Your task to perform on an android device: Open Google Image 0: 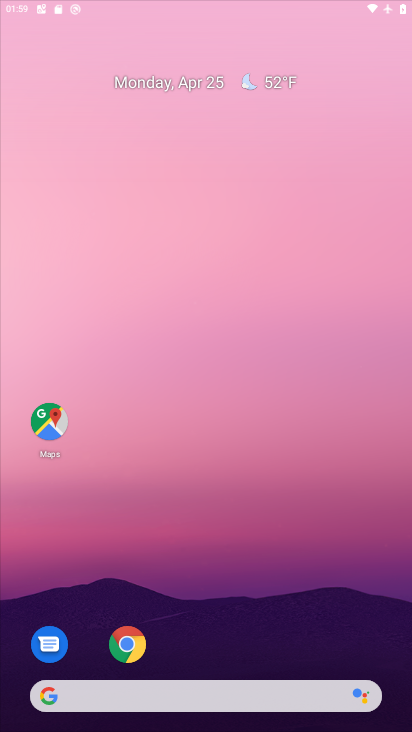
Step 0: click (121, 637)
Your task to perform on an android device: Open Google Image 1: 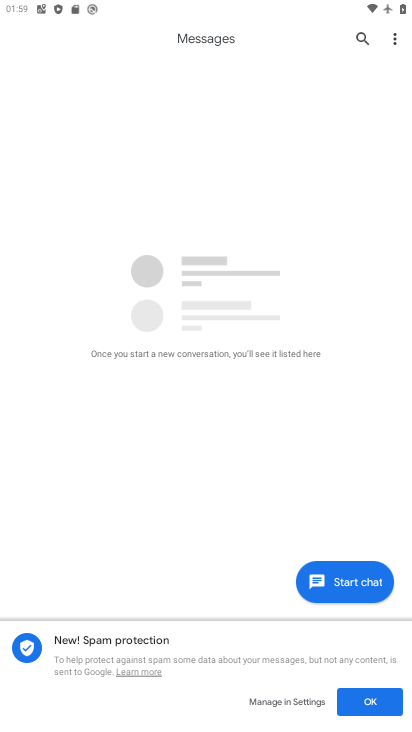
Step 1: press home button
Your task to perform on an android device: Open Google Image 2: 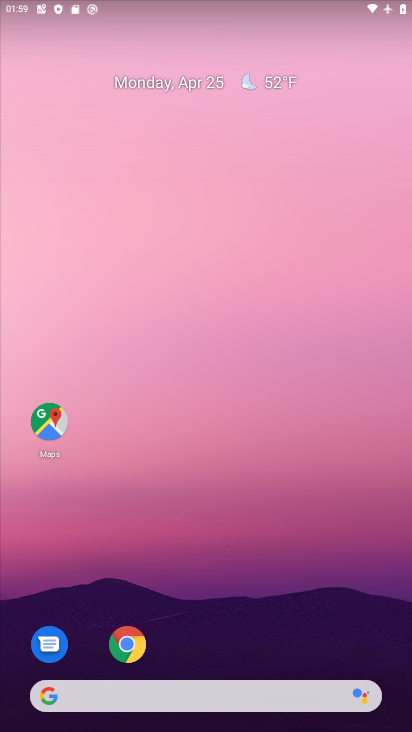
Step 2: click (218, 694)
Your task to perform on an android device: Open Google Image 3: 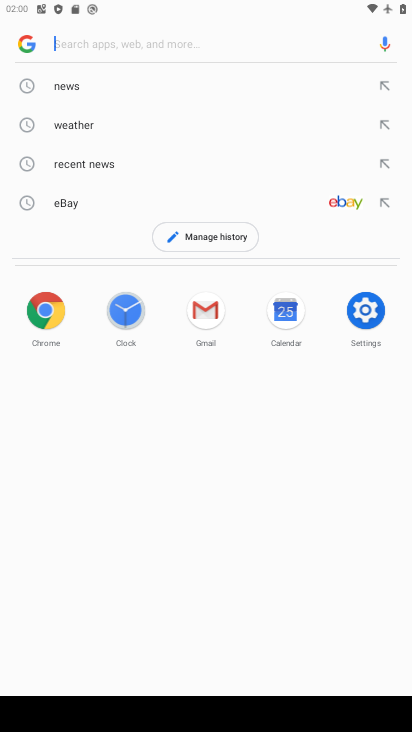
Step 3: type "geeelge.com"
Your task to perform on an android device: Open Google Image 4: 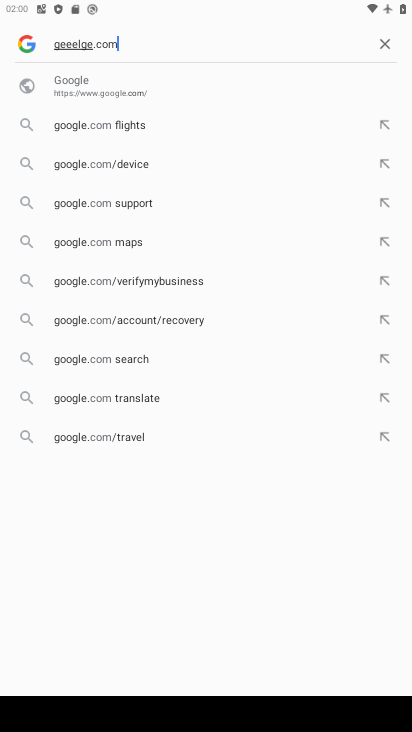
Step 4: click (162, 97)
Your task to perform on an android device: Open Google Image 5: 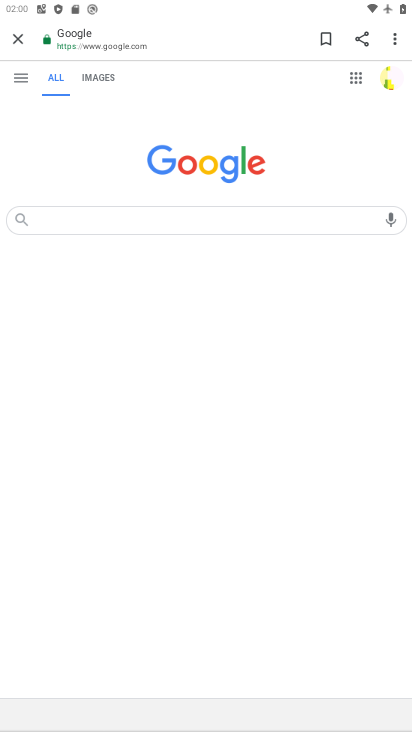
Step 5: task complete